Your task to perform on an android device: turn pop-ups on in chrome Image 0: 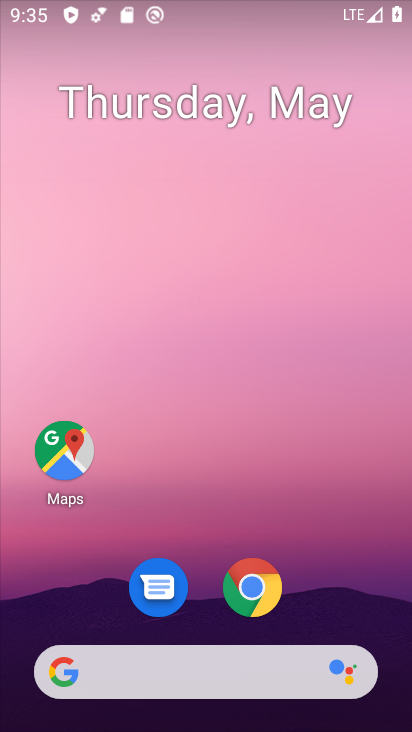
Step 0: click (260, 590)
Your task to perform on an android device: turn pop-ups on in chrome Image 1: 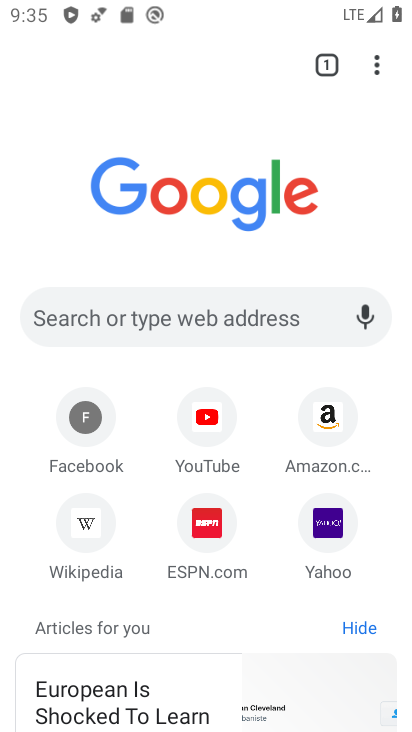
Step 1: click (376, 70)
Your task to perform on an android device: turn pop-ups on in chrome Image 2: 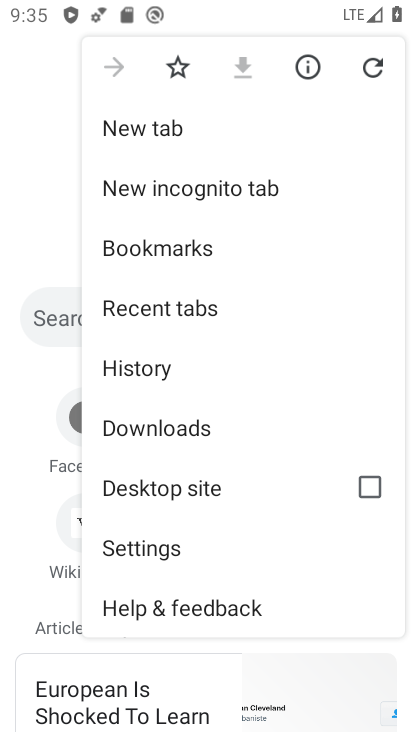
Step 2: click (141, 550)
Your task to perform on an android device: turn pop-ups on in chrome Image 3: 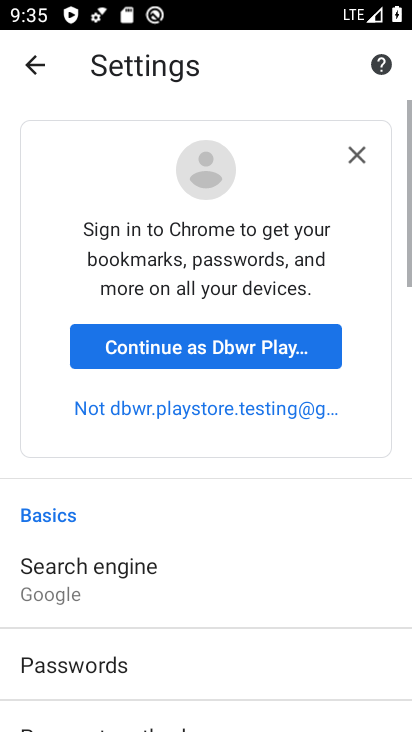
Step 3: drag from (198, 544) to (221, 134)
Your task to perform on an android device: turn pop-ups on in chrome Image 4: 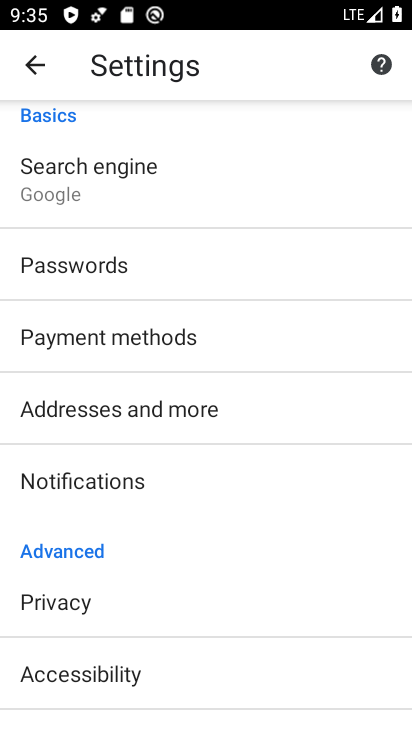
Step 4: drag from (226, 572) to (237, 213)
Your task to perform on an android device: turn pop-ups on in chrome Image 5: 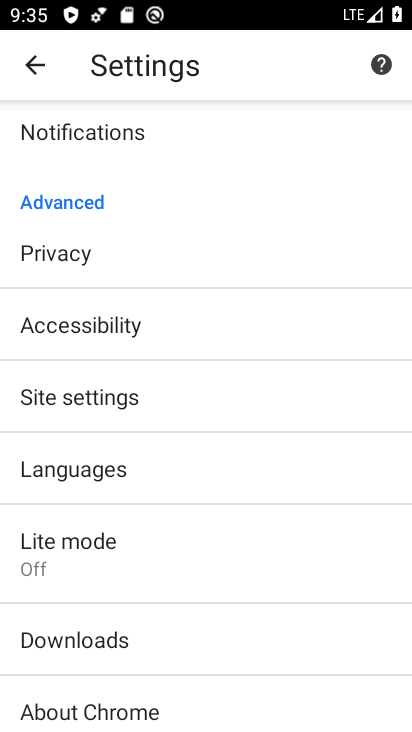
Step 5: click (128, 396)
Your task to perform on an android device: turn pop-ups on in chrome Image 6: 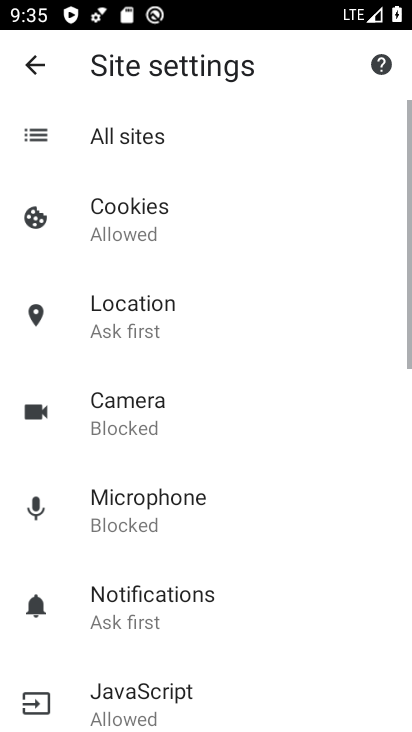
Step 6: drag from (227, 606) to (229, 234)
Your task to perform on an android device: turn pop-ups on in chrome Image 7: 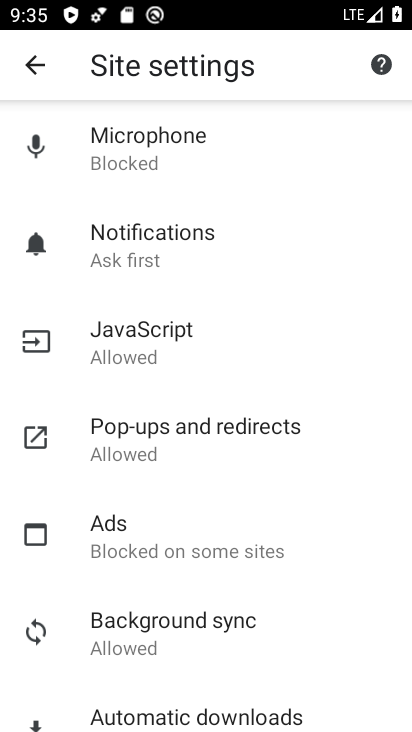
Step 7: click (136, 445)
Your task to perform on an android device: turn pop-ups on in chrome Image 8: 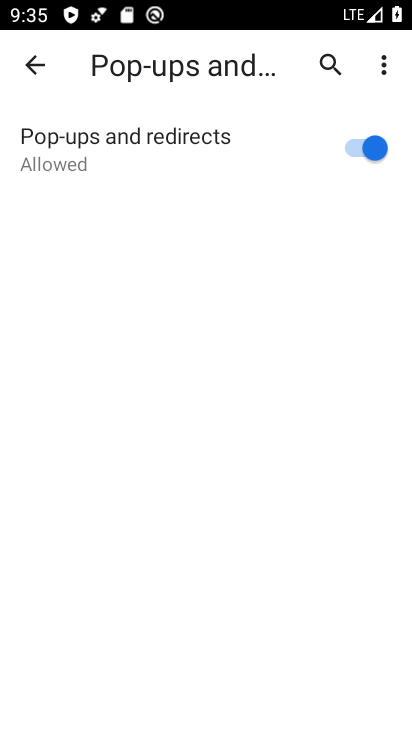
Step 8: task complete